Your task to perform on an android device: Open ESPN.com Image 0: 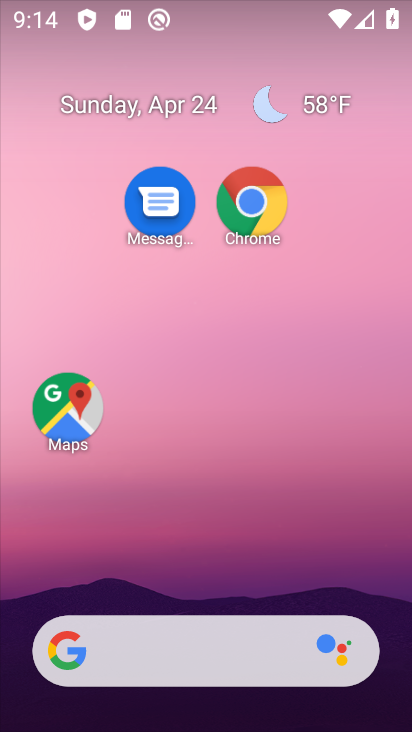
Step 0: click (251, 206)
Your task to perform on an android device: Open ESPN.com Image 1: 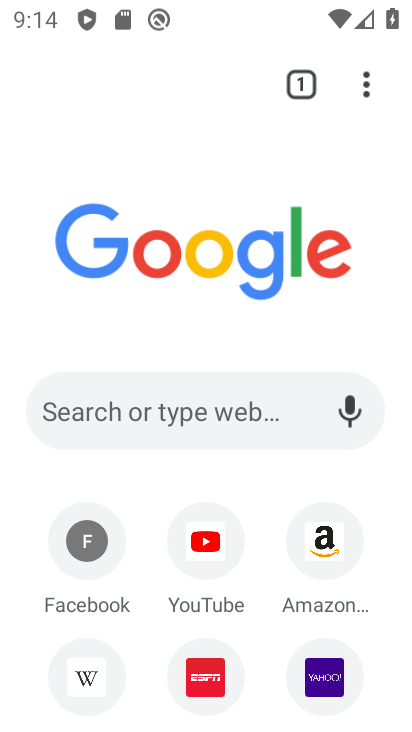
Step 1: click (183, 414)
Your task to perform on an android device: Open ESPN.com Image 2: 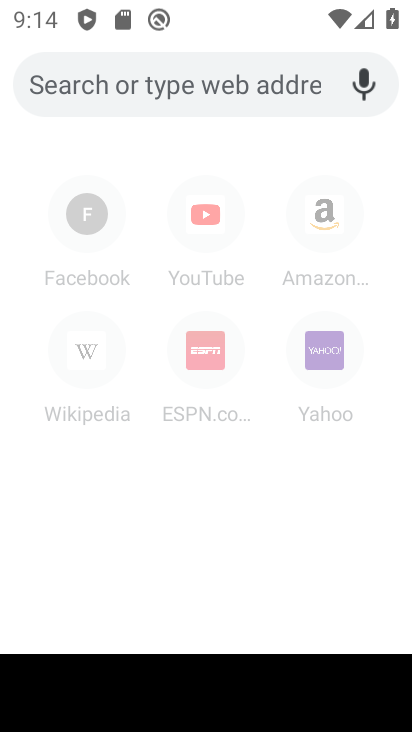
Step 2: type "ESPN.com"
Your task to perform on an android device: Open ESPN.com Image 3: 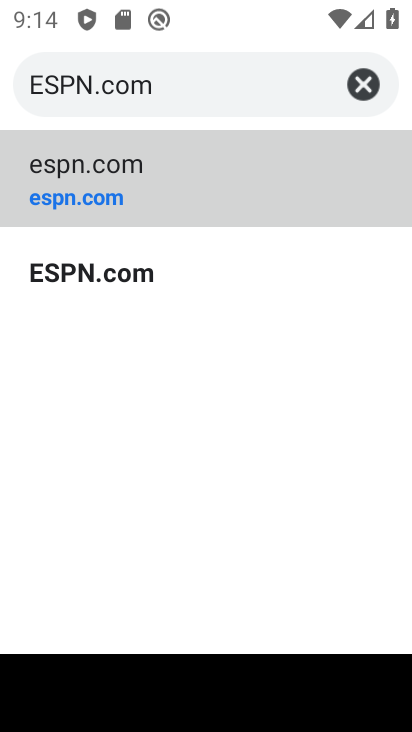
Step 3: click (87, 169)
Your task to perform on an android device: Open ESPN.com Image 4: 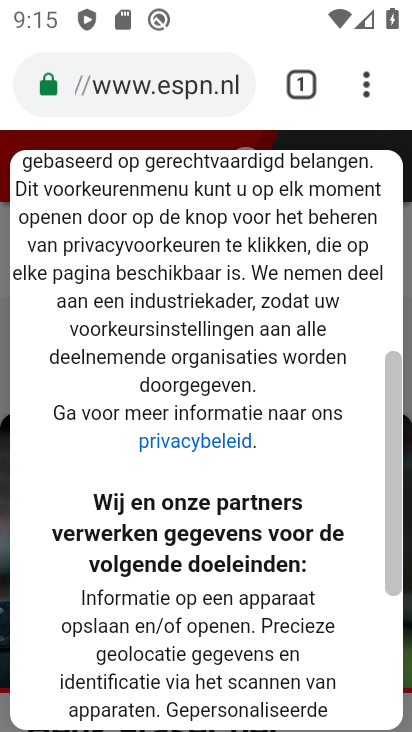
Step 4: task complete